Your task to perform on an android device: turn smart compose on in the gmail app Image 0: 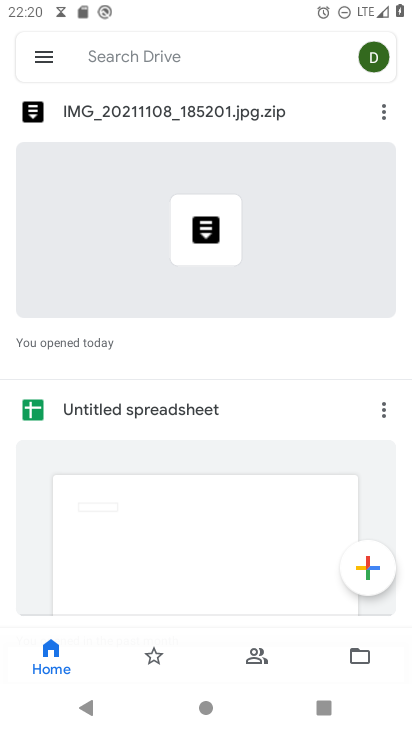
Step 0: press home button
Your task to perform on an android device: turn smart compose on in the gmail app Image 1: 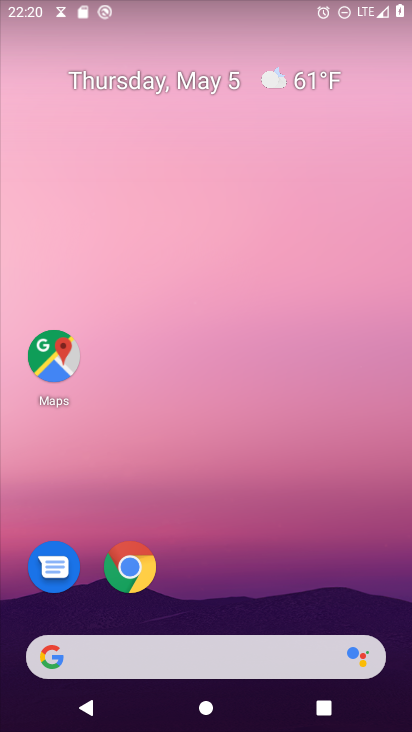
Step 1: drag from (224, 712) to (221, 212)
Your task to perform on an android device: turn smart compose on in the gmail app Image 2: 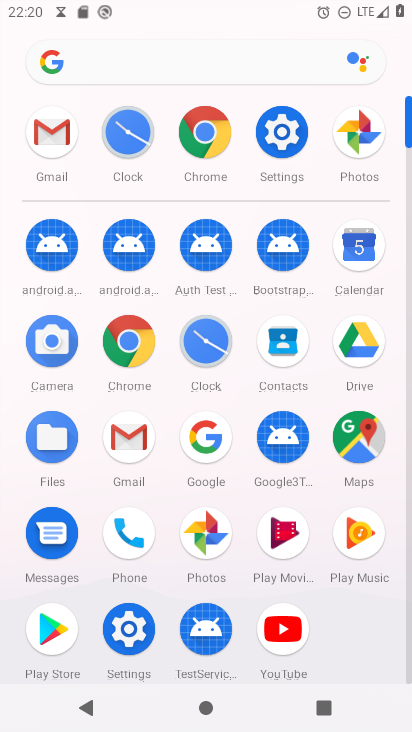
Step 2: click (125, 440)
Your task to perform on an android device: turn smart compose on in the gmail app Image 3: 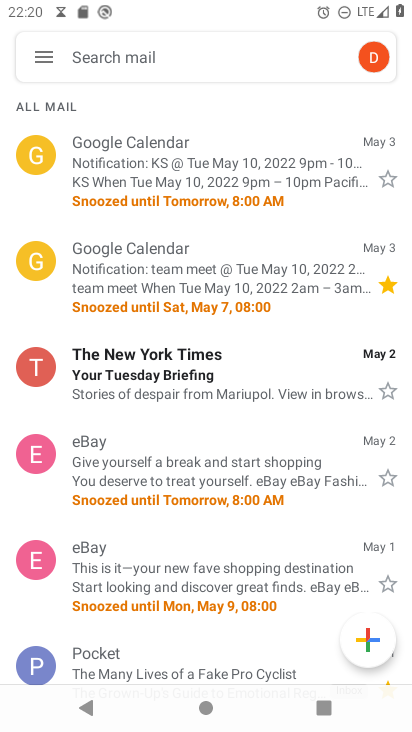
Step 3: click (43, 60)
Your task to perform on an android device: turn smart compose on in the gmail app Image 4: 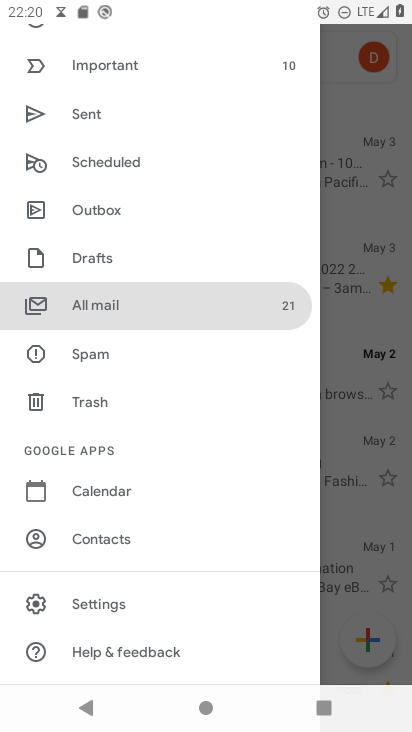
Step 4: click (98, 600)
Your task to perform on an android device: turn smart compose on in the gmail app Image 5: 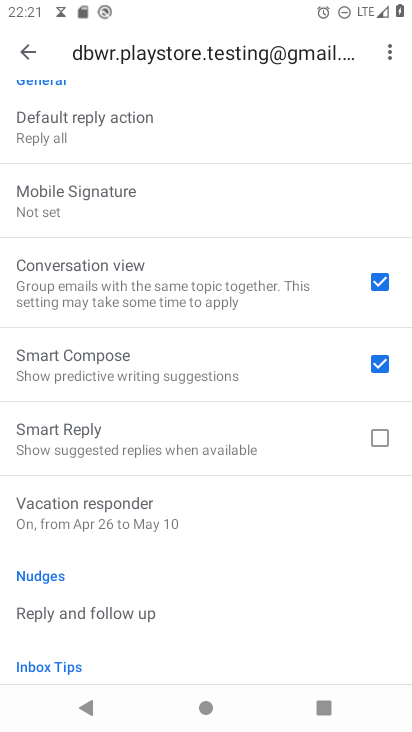
Step 5: task complete